Your task to perform on an android device: Go to sound settings Image 0: 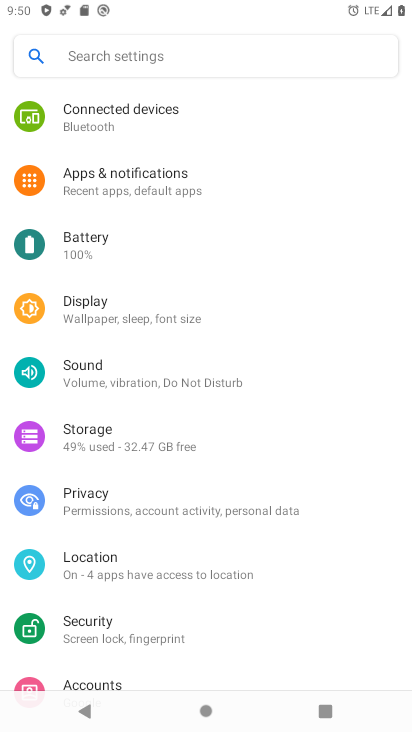
Step 0: click (224, 380)
Your task to perform on an android device: Go to sound settings Image 1: 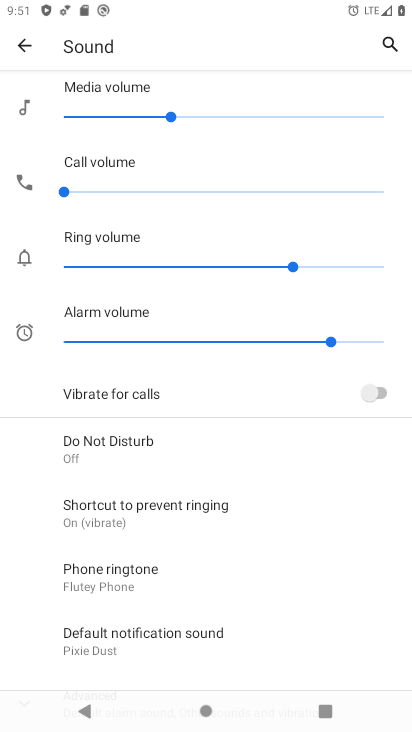
Step 1: task complete